Your task to perform on an android device: set the timer Image 0: 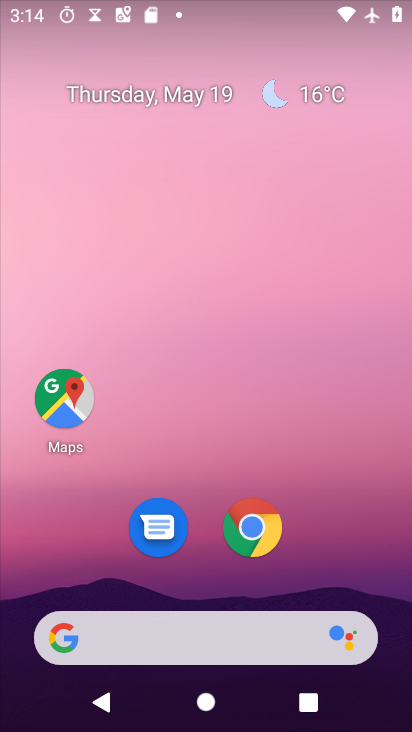
Step 0: drag from (361, 550) to (182, 55)
Your task to perform on an android device: set the timer Image 1: 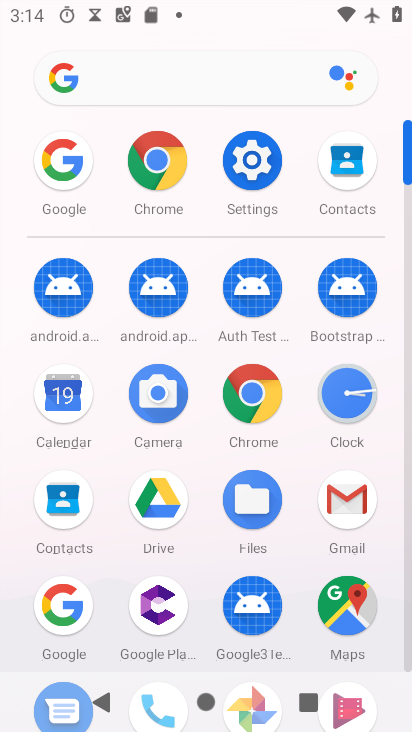
Step 1: click (358, 387)
Your task to perform on an android device: set the timer Image 2: 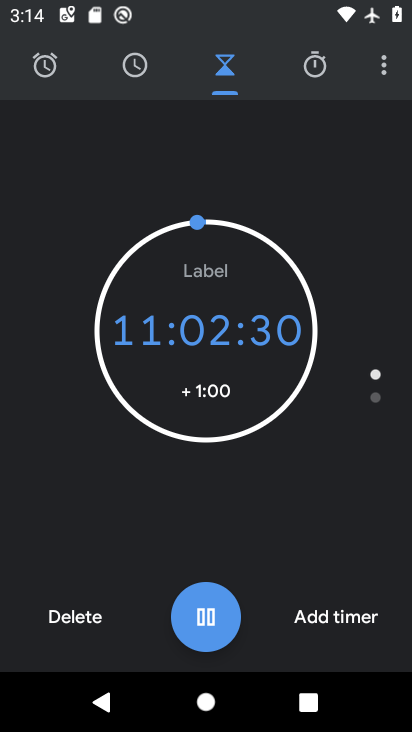
Step 2: click (82, 615)
Your task to perform on an android device: set the timer Image 3: 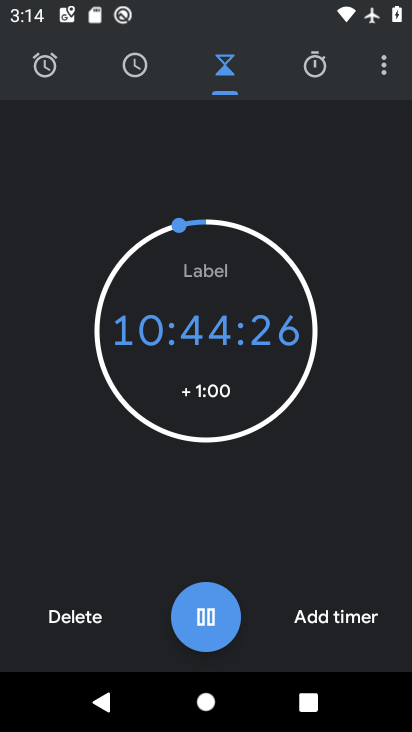
Step 3: click (84, 616)
Your task to perform on an android device: set the timer Image 4: 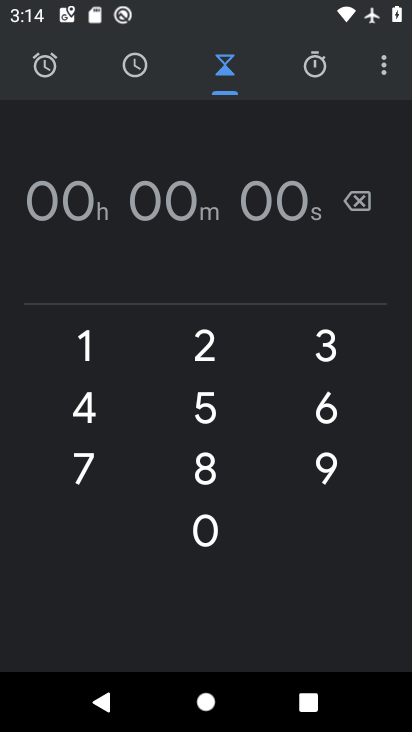
Step 4: click (86, 329)
Your task to perform on an android device: set the timer Image 5: 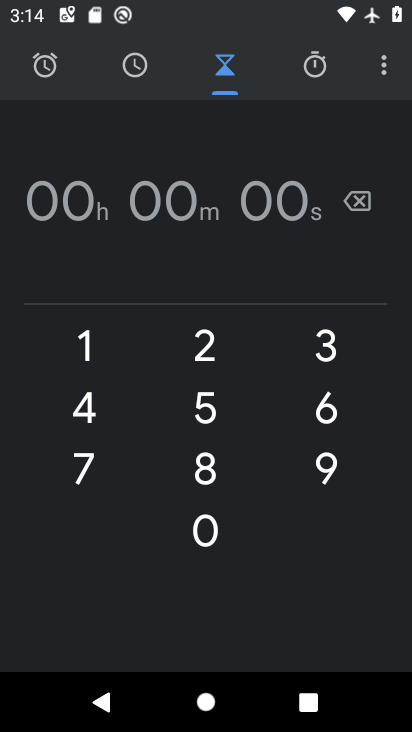
Step 5: click (86, 329)
Your task to perform on an android device: set the timer Image 6: 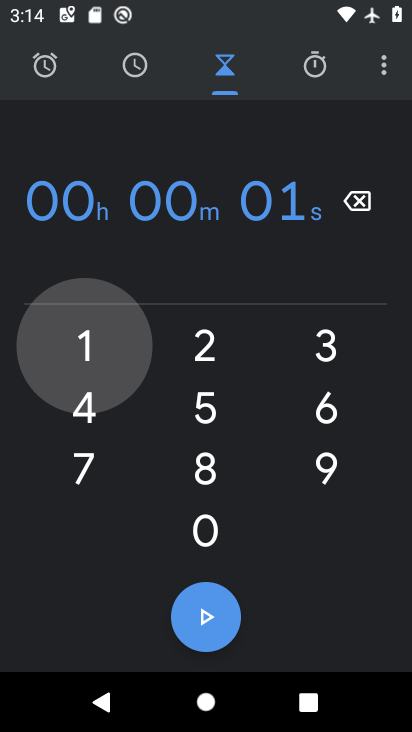
Step 6: click (86, 329)
Your task to perform on an android device: set the timer Image 7: 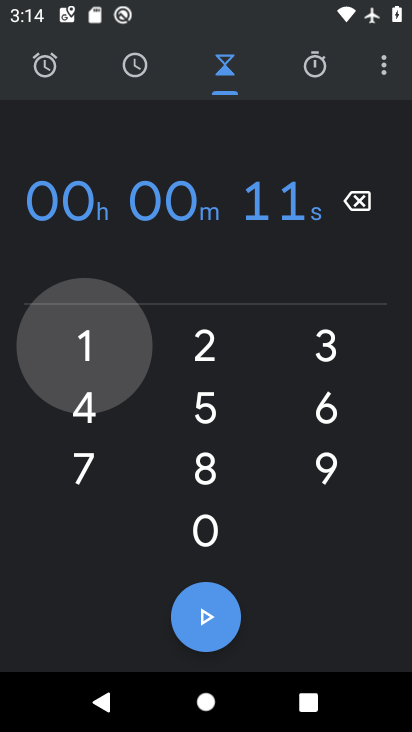
Step 7: click (86, 329)
Your task to perform on an android device: set the timer Image 8: 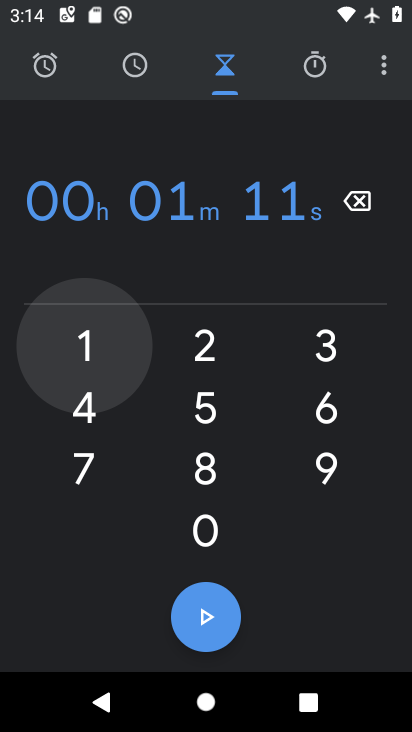
Step 8: click (87, 330)
Your task to perform on an android device: set the timer Image 9: 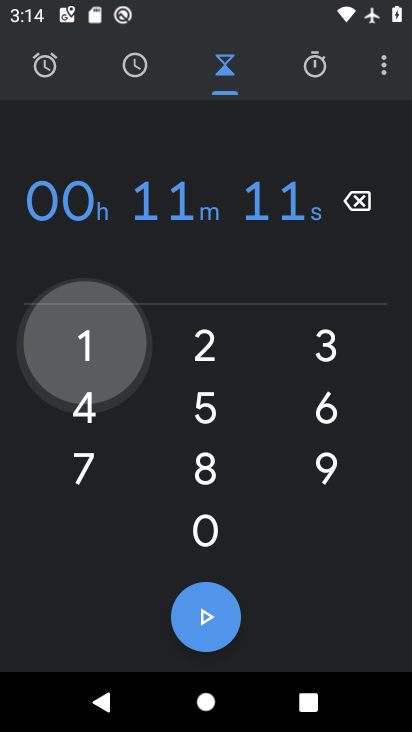
Step 9: click (87, 330)
Your task to perform on an android device: set the timer Image 10: 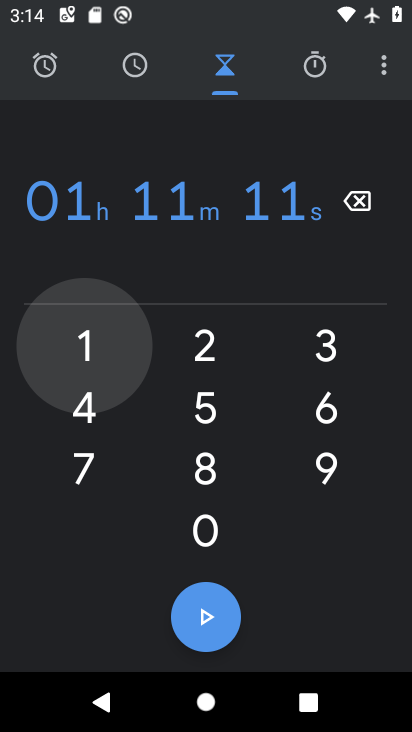
Step 10: click (87, 330)
Your task to perform on an android device: set the timer Image 11: 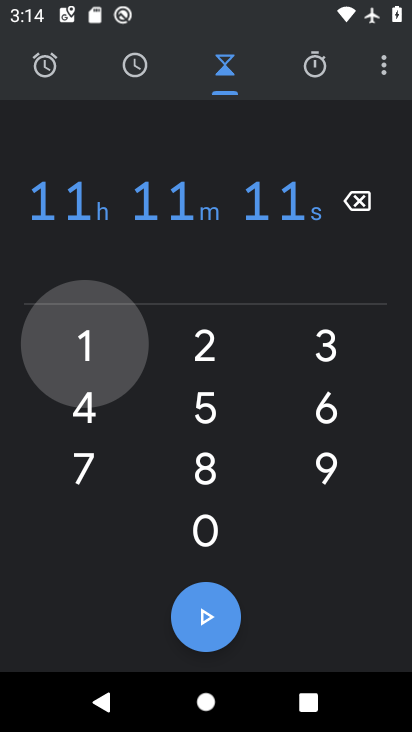
Step 11: click (87, 330)
Your task to perform on an android device: set the timer Image 12: 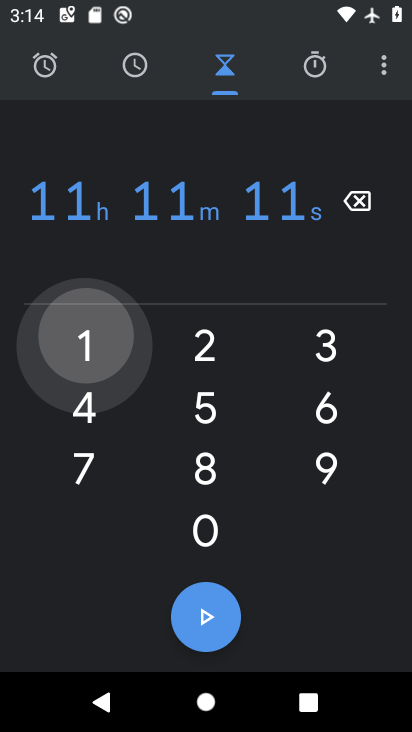
Step 12: click (87, 330)
Your task to perform on an android device: set the timer Image 13: 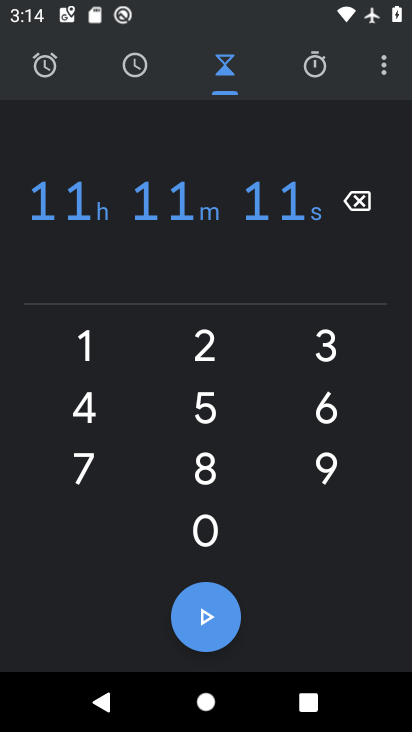
Step 13: click (209, 625)
Your task to perform on an android device: set the timer Image 14: 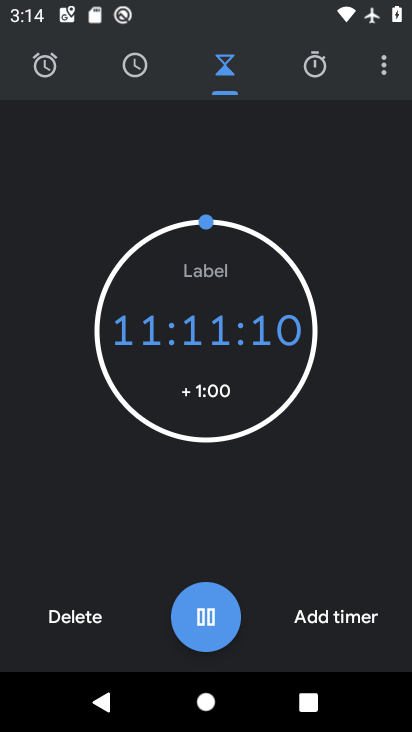
Step 14: task complete